Your task to perform on an android device: Go to Yahoo.com Image 0: 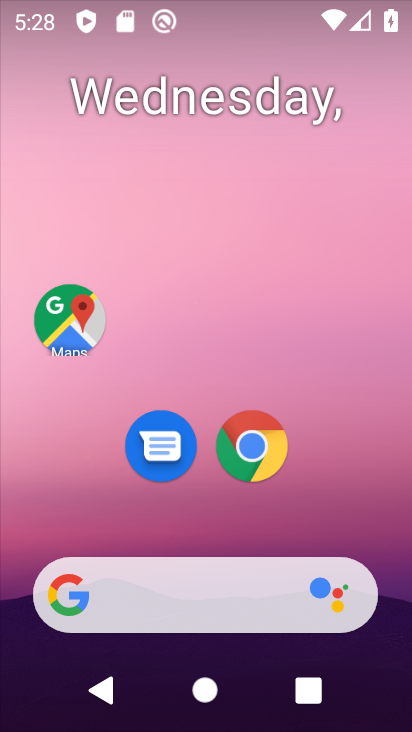
Step 0: drag from (361, 425) to (237, 22)
Your task to perform on an android device: Go to Yahoo.com Image 1: 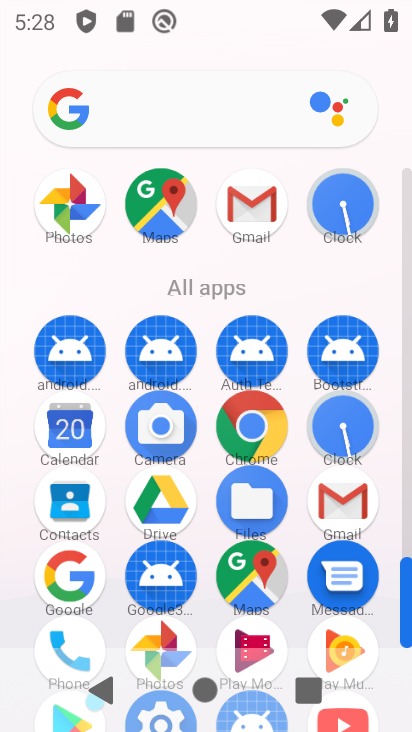
Step 1: click (252, 416)
Your task to perform on an android device: Go to Yahoo.com Image 2: 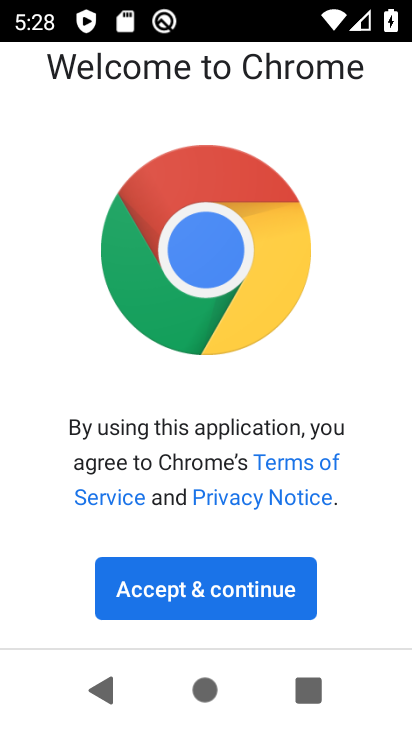
Step 2: click (210, 596)
Your task to perform on an android device: Go to Yahoo.com Image 3: 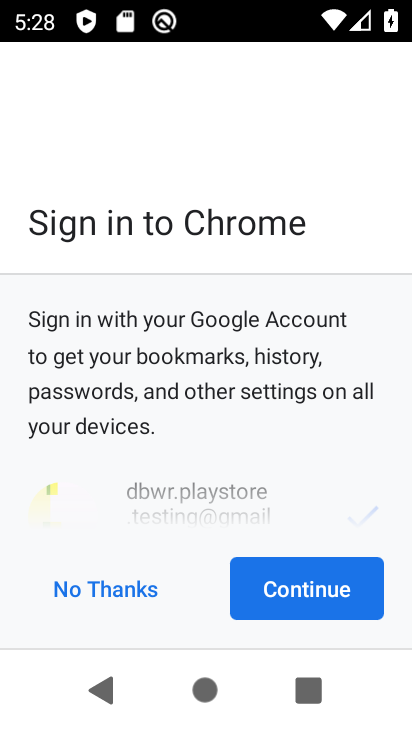
Step 3: click (311, 578)
Your task to perform on an android device: Go to Yahoo.com Image 4: 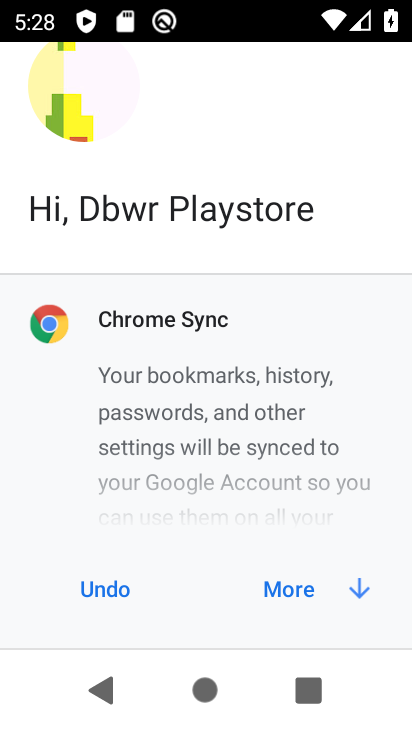
Step 4: click (311, 578)
Your task to perform on an android device: Go to Yahoo.com Image 5: 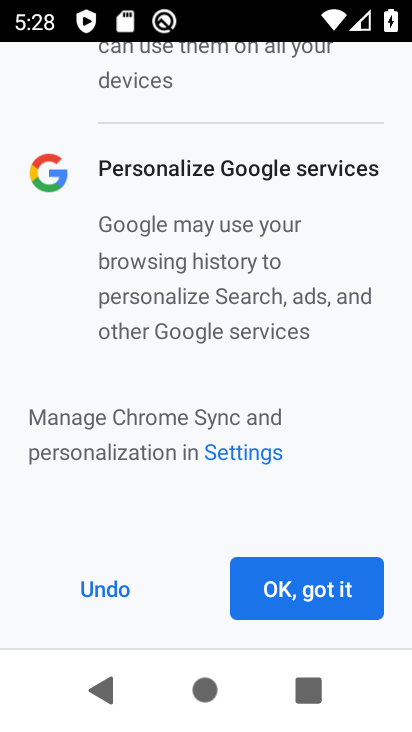
Step 5: click (311, 578)
Your task to perform on an android device: Go to Yahoo.com Image 6: 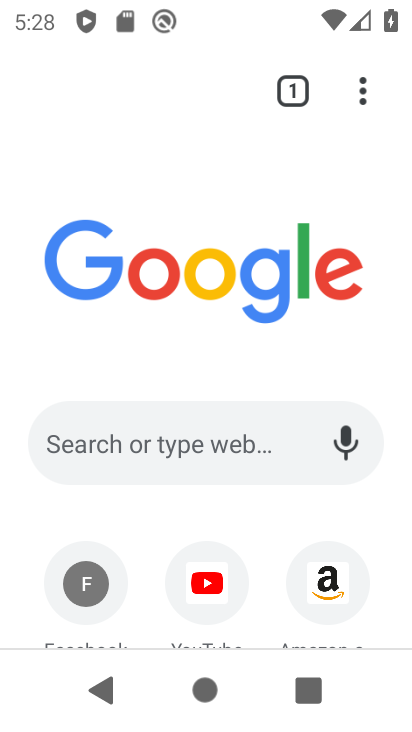
Step 6: click (241, 451)
Your task to perform on an android device: Go to Yahoo.com Image 7: 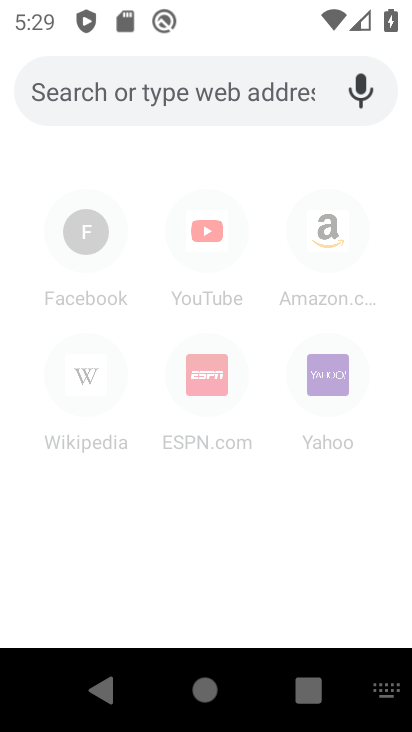
Step 7: click (331, 363)
Your task to perform on an android device: Go to Yahoo.com Image 8: 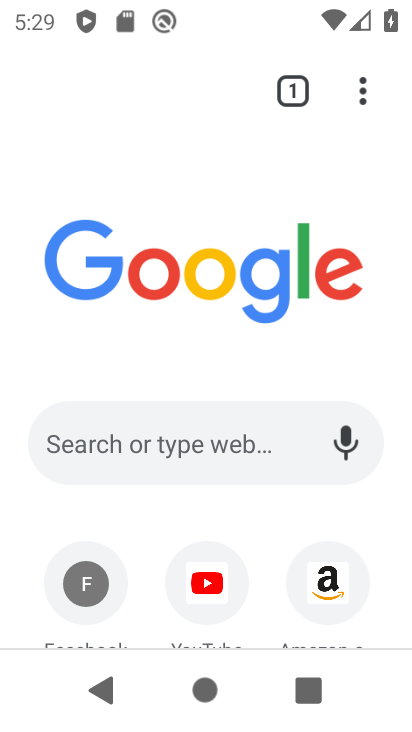
Step 8: click (146, 432)
Your task to perform on an android device: Go to Yahoo.com Image 9: 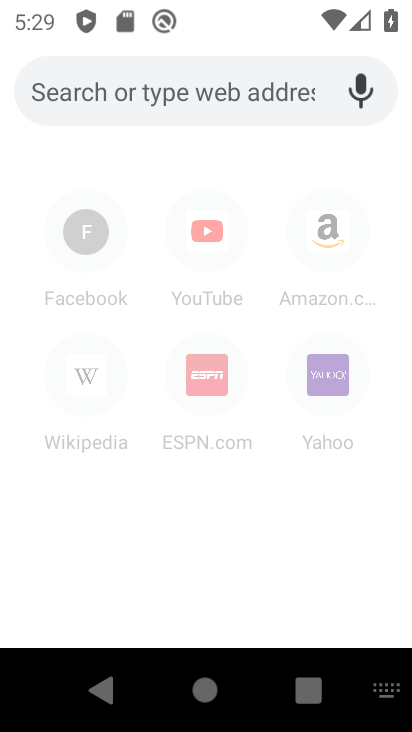
Step 9: type "Yahoo.com"
Your task to perform on an android device: Go to Yahoo.com Image 10: 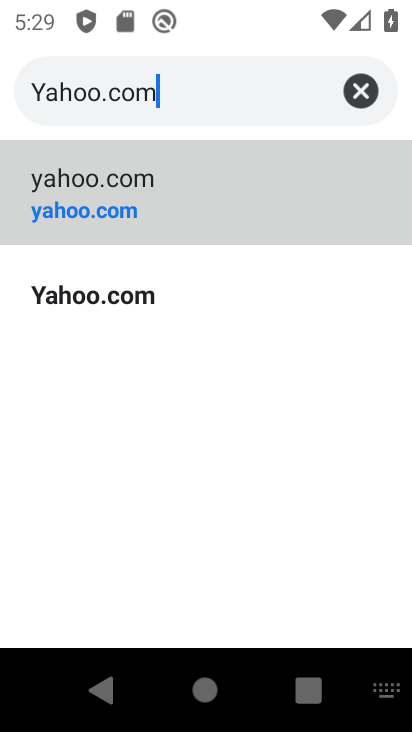
Step 10: type ""
Your task to perform on an android device: Go to Yahoo.com Image 11: 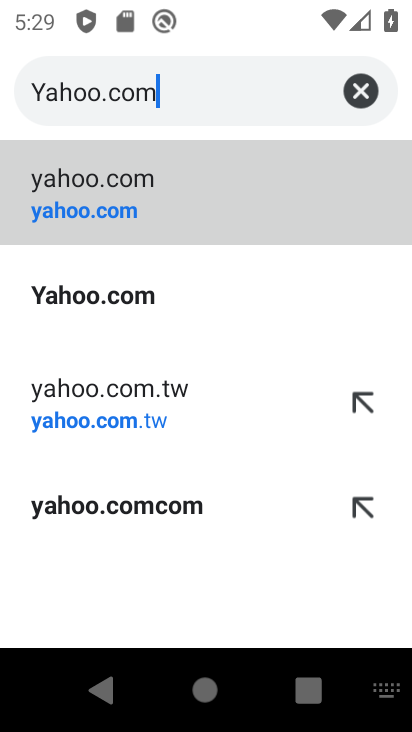
Step 11: click (160, 192)
Your task to perform on an android device: Go to Yahoo.com Image 12: 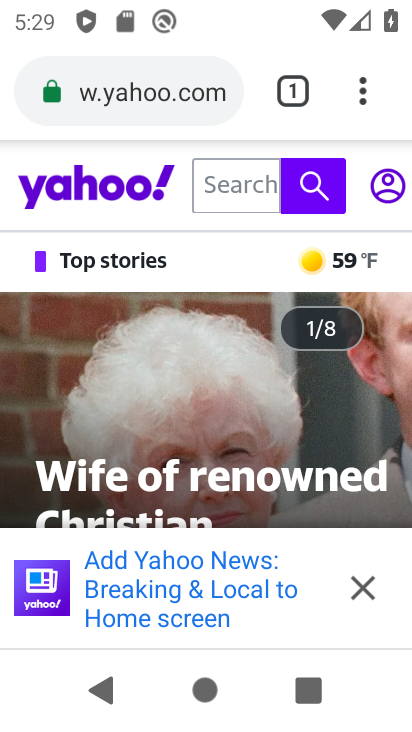
Step 12: task complete